Your task to perform on an android device: Open ESPN.com Image 0: 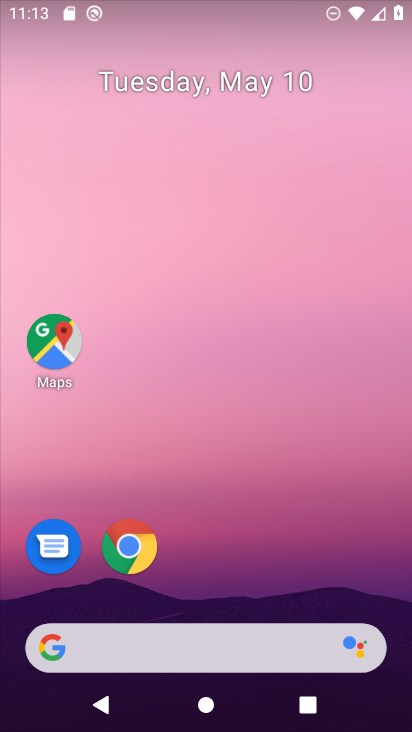
Step 0: click (128, 543)
Your task to perform on an android device: Open ESPN.com Image 1: 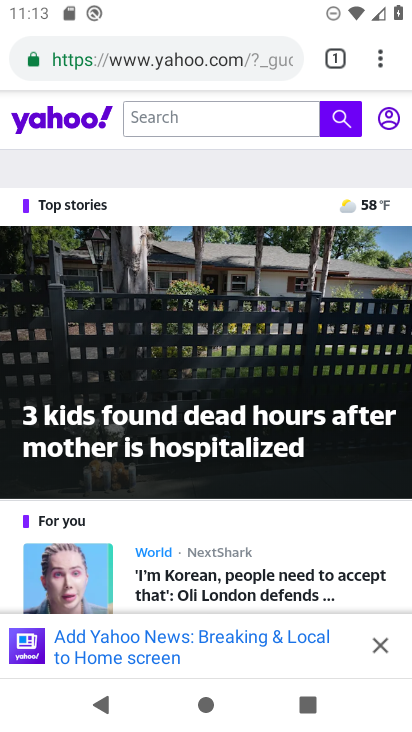
Step 1: click (242, 55)
Your task to perform on an android device: Open ESPN.com Image 2: 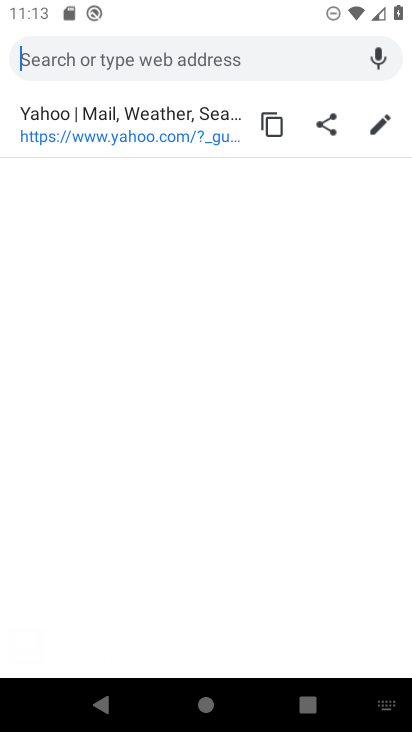
Step 2: type "espn.com"
Your task to perform on an android device: Open ESPN.com Image 3: 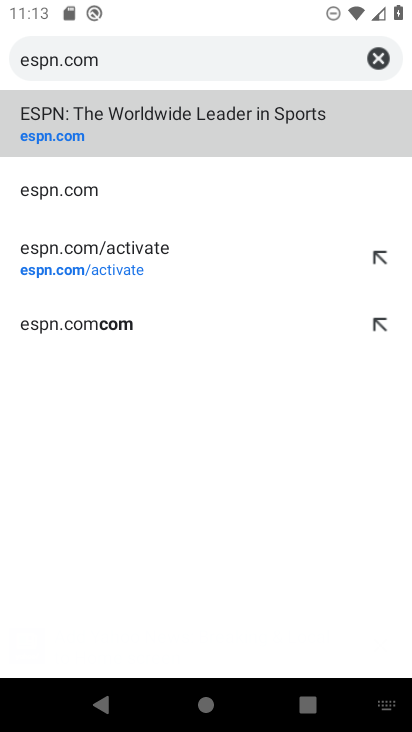
Step 3: click (59, 140)
Your task to perform on an android device: Open ESPN.com Image 4: 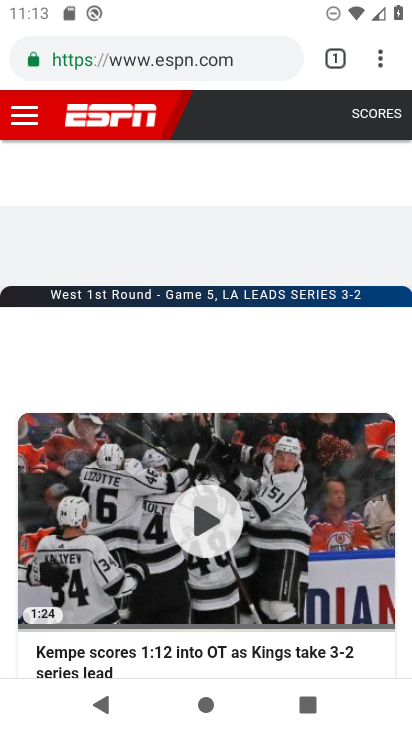
Step 4: task complete